Your task to perform on an android device: open wifi settings Image 0: 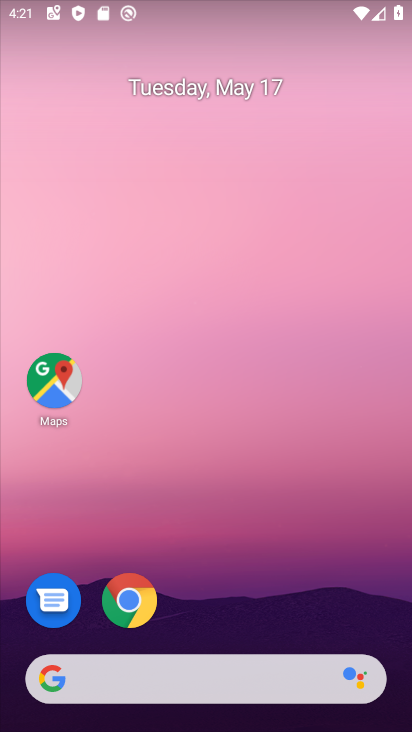
Step 0: drag from (200, 599) to (328, 10)
Your task to perform on an android device: open wifi settings Image 1: 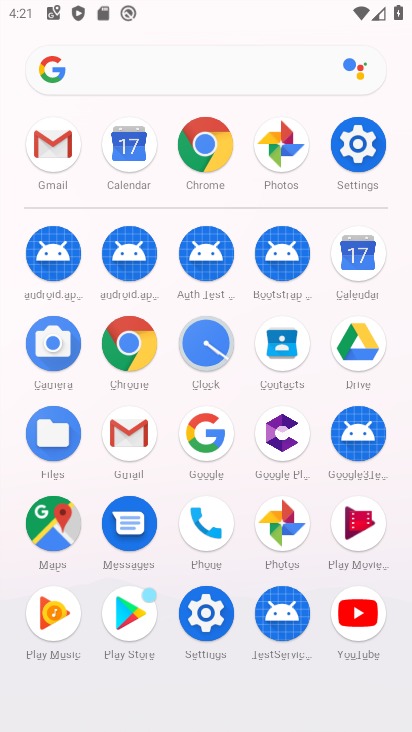
Step 1: click (356, 160)
Your task to perform on an android device: open wifi settings Image 2: 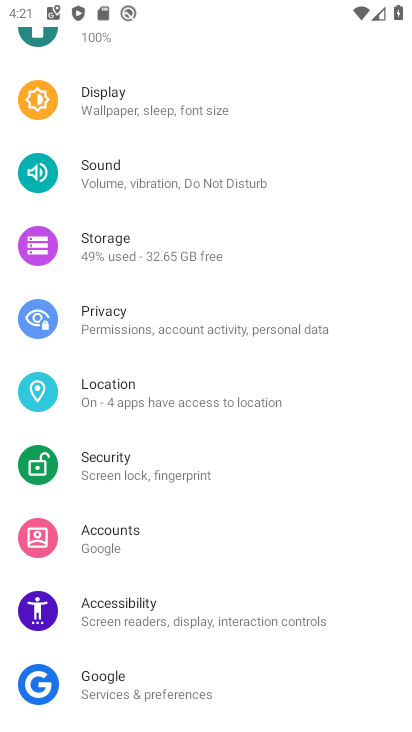
Step 2: drag from (207, 162) to (173, 474)
Your task to perform on an android device: open wifi settings Image 3: 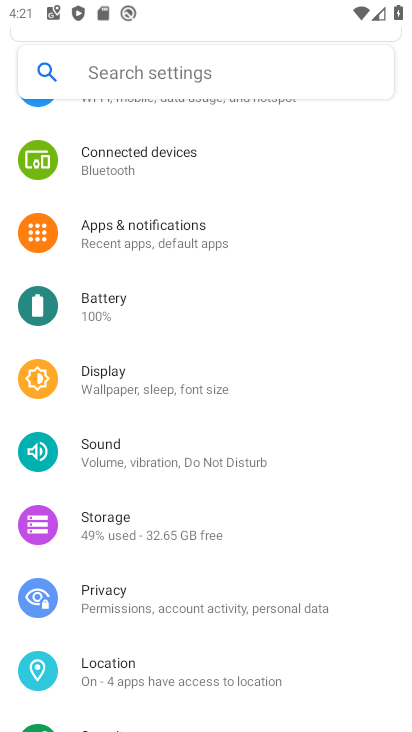
Step 3: drag from (148, 171) to (120, 459)
Your task to perform on an android device: open wifi settings Image 4: 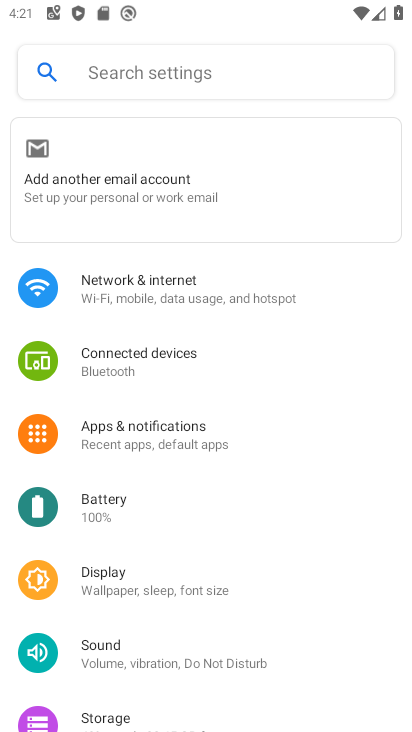
Step 4: click (137, 301)
Your task to perform on an android device: open wifi settings Image 5: 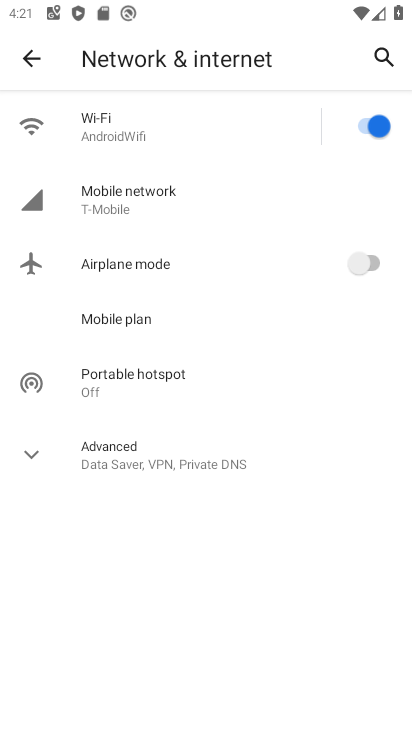
Step 5: click (141, 136)
Your task to perform on an android device: open wifi settings Image 6: 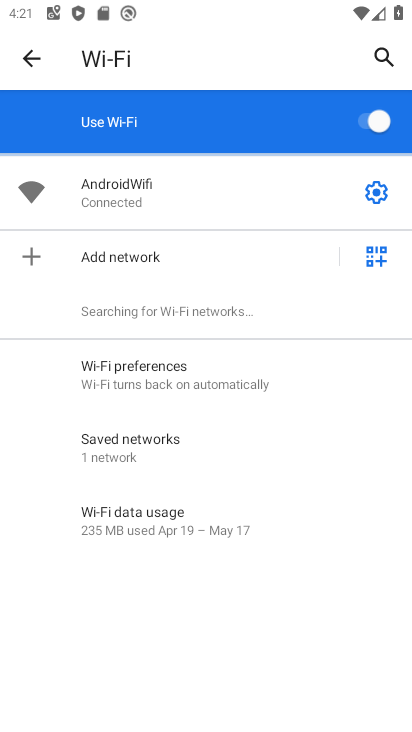
Step 6: task complete